Your task to perform on an android device: Set the phone to "Do not disturb". Image 0: 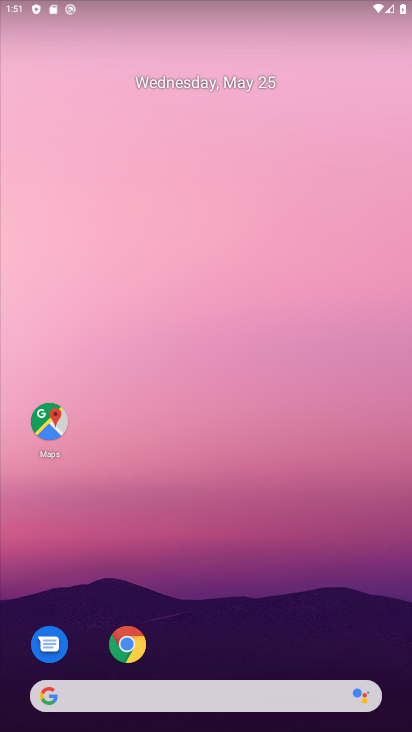
Step 0: drag from (231, 638) to (178, 180)
Your task to perform on an android device: Set the phone to "Do not disturb". Image 1: 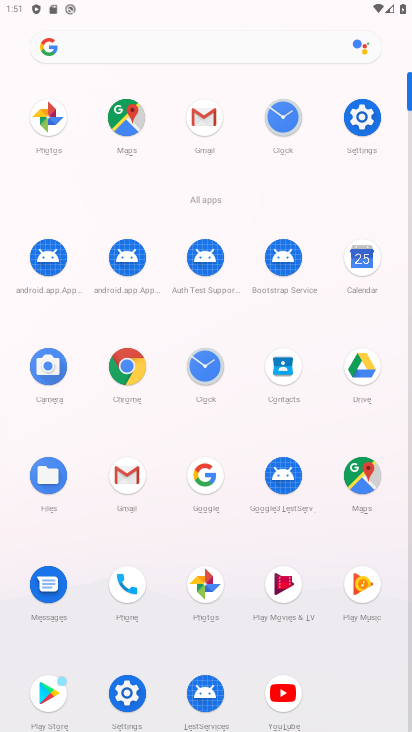
Step 1: click (353, 123)
Your task to perform on an android device: Set the phone to "Do not disturb". Image 2: 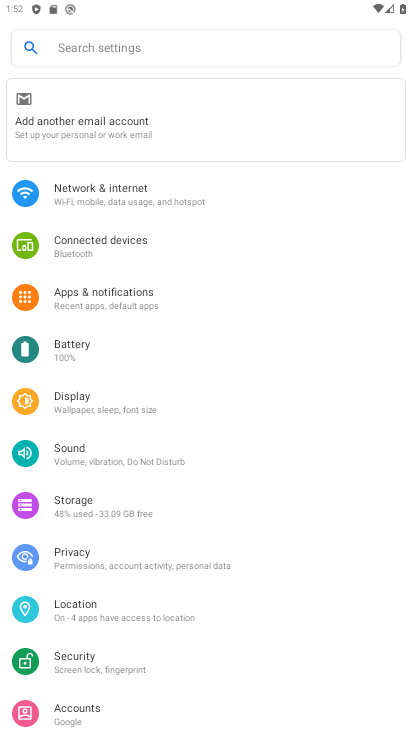
Step 2: click (110, 458)
Your task to perform on an android device: Set the phone to "Do not disturb". Image 3: 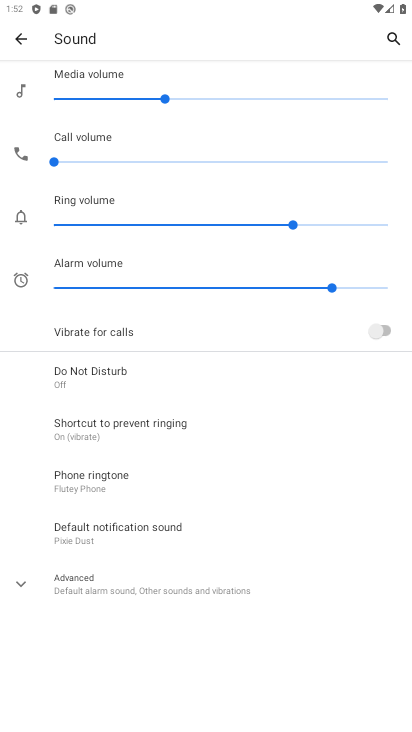
Step 3: click (143, 357)
Your task to perform on an android device: Set the phone to "Do not disturb". Image 4: 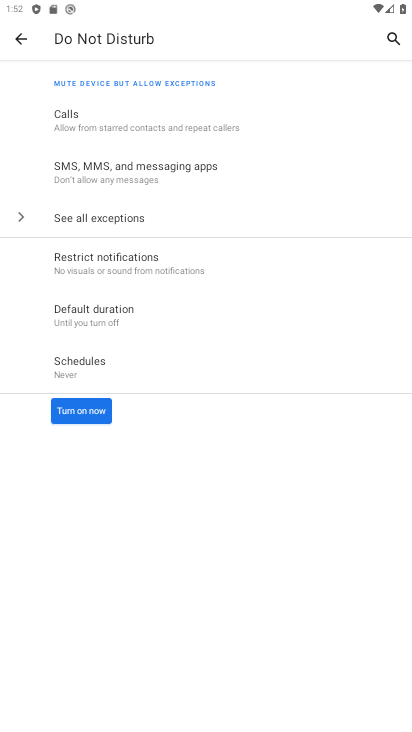
Step 4: click (92, 405)
Your task to perform on an android device: Set the phone to "Do not disturb". Image 5: 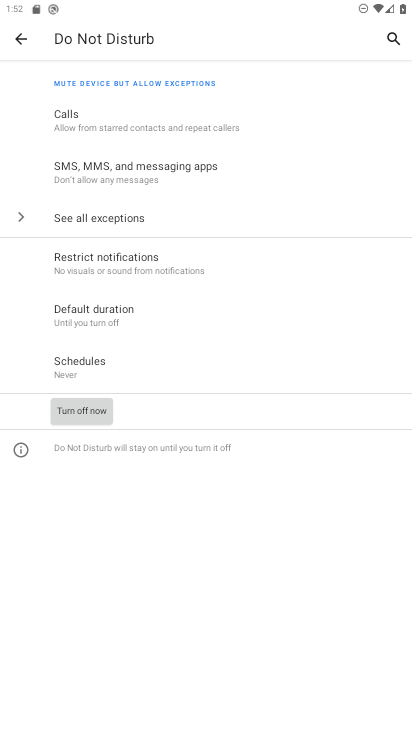
Step 5: task complete